Your task to perform on an android device: toggle pop-ups in chrome Image 0: 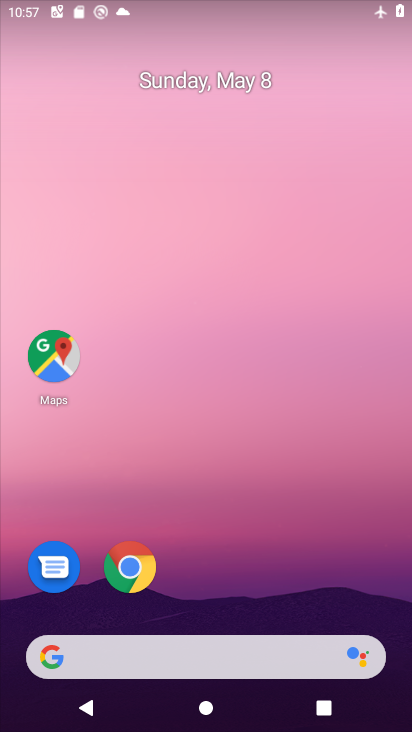
Step 0: click (127, 581)
Your task to perform on an android device: toggle pop-ups in chrome Image 1: 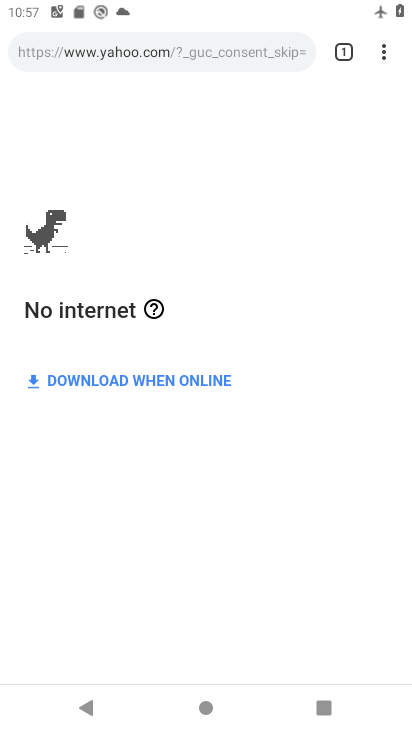
Step 1: click (379, 51)
Your task to perform on an android device: toggle pop-ups in chrome Image 2: 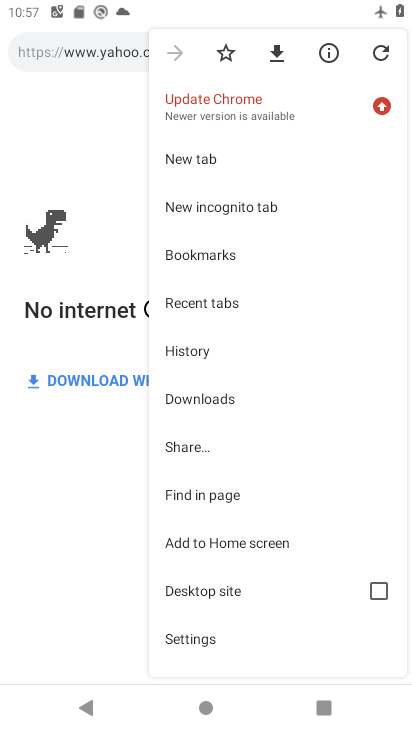
Step 2: click (192, 642)
Your task to perform on an android device: toggle pop-ups in chrome Image 3: 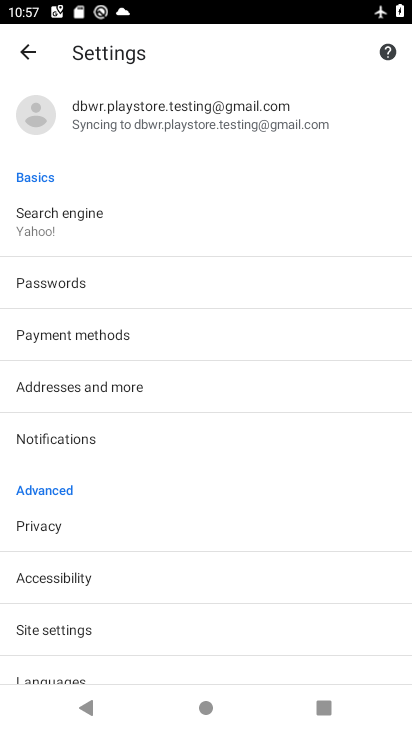
Step 3: click (86, 638)
Your task to perform on an android device: toggle pop-ups in chrome Image 4: 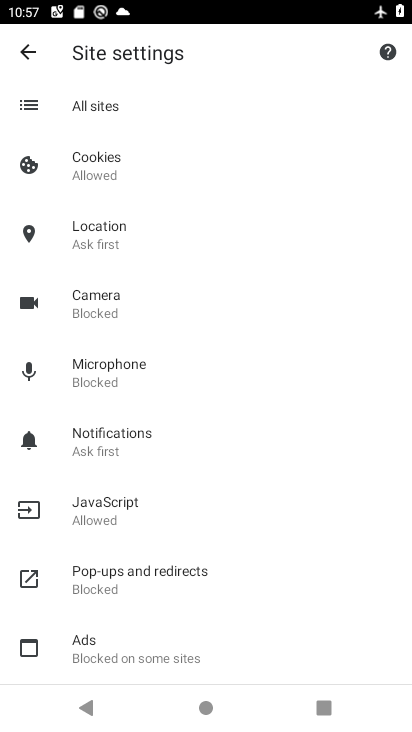
Step 4: click (121, 584)
Your task to perform on an android device: toggle pop-ups in chrome Image 5: 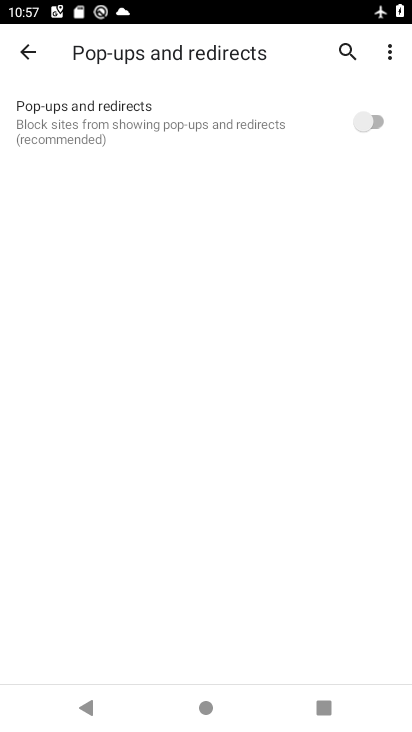
Step 5: click (374, 126)
Your task to perform on an android device: toggle pop-ups in chrome Image 6: 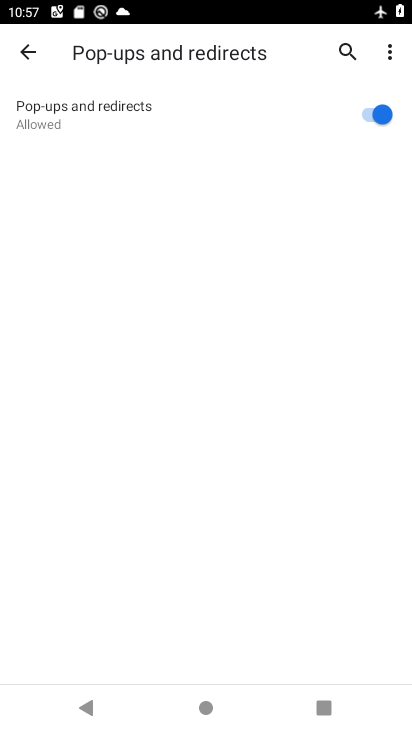
Step 6: task complete